Your task to perform on an android device: Go to privacy settings Image 0: 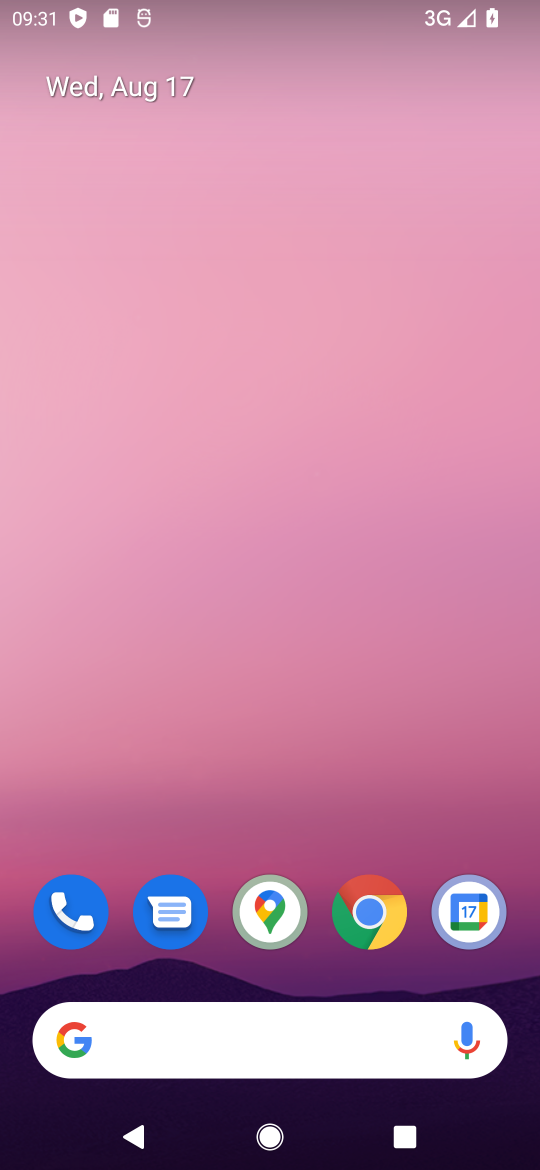
Step 0: drag from (289, 857) to (312, 392)
Your task to perform on an android device: Go to privacy settings Image 1: 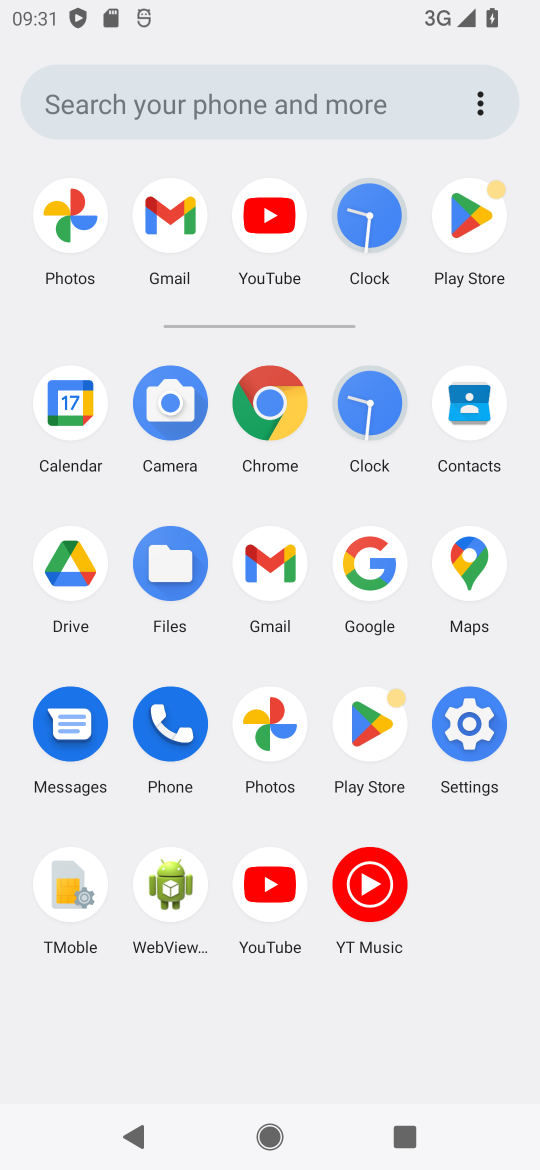
Step 1: click (455, 726)
Your task to perform on an android device: Go to privacy settings Image 2: 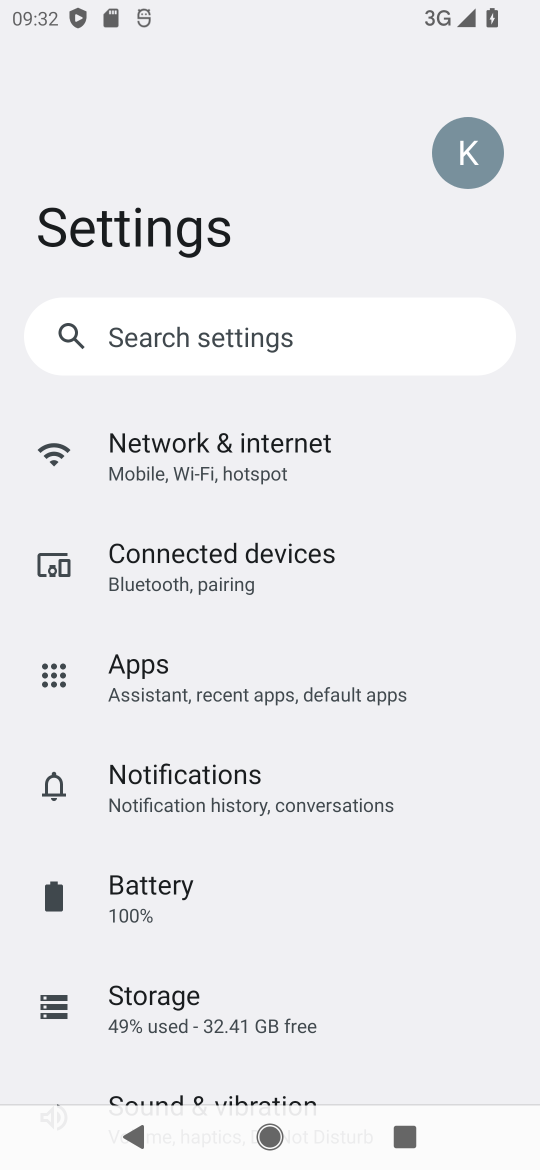
Step 2: drag from (167, 1023) to (104, 355)
Your task to perform on an android device: Go to privacy settings Image 3: 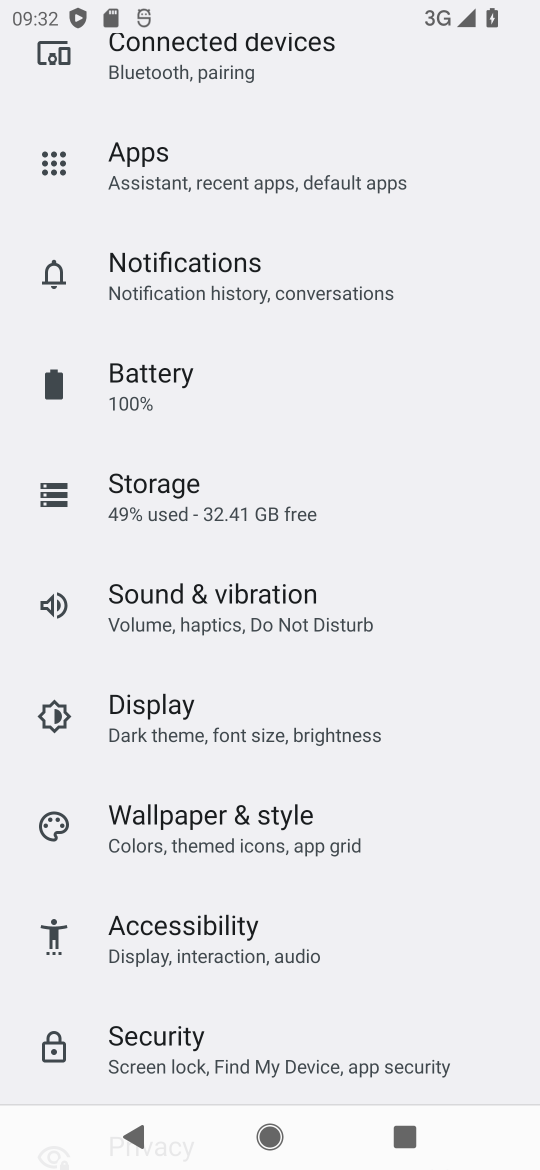
Step 3: drag from (178, 1016) to (182, 625)
Your task to perform on an android device: Go to privacy settings Image 4: 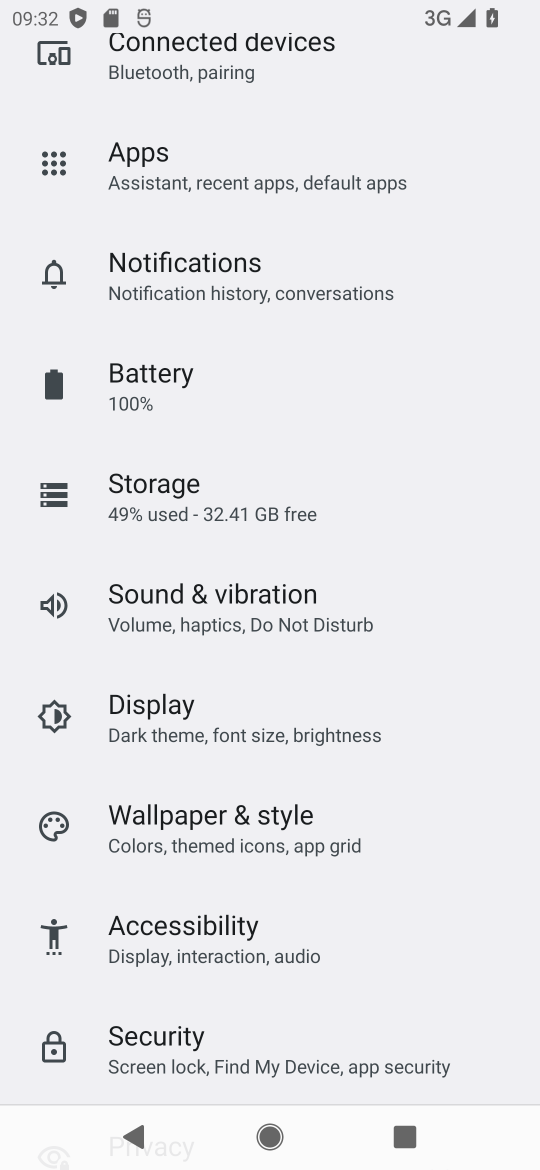
Step 4: drag from (147, 796) to (150, 323)
Your task to perform on an android device: Go to privacy settings Image 5: 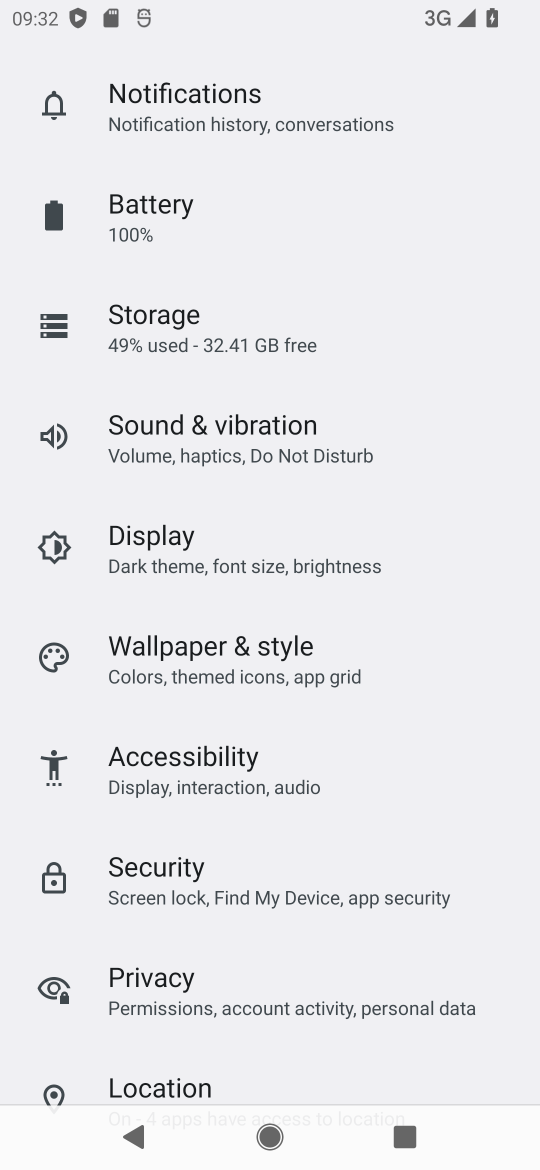
Step 5: click (175, 981)
Your task to perform on an android device: Go to privacy settings Image 6: 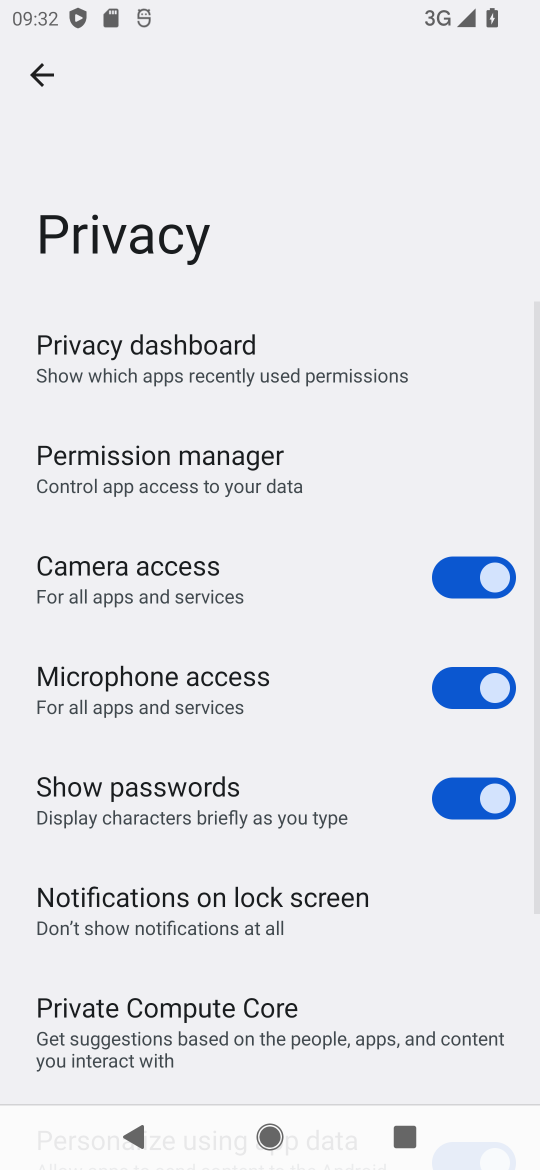
Step 6: task complete